Your task to perform on an android device: delete browsing data in the chrome app Image 0: 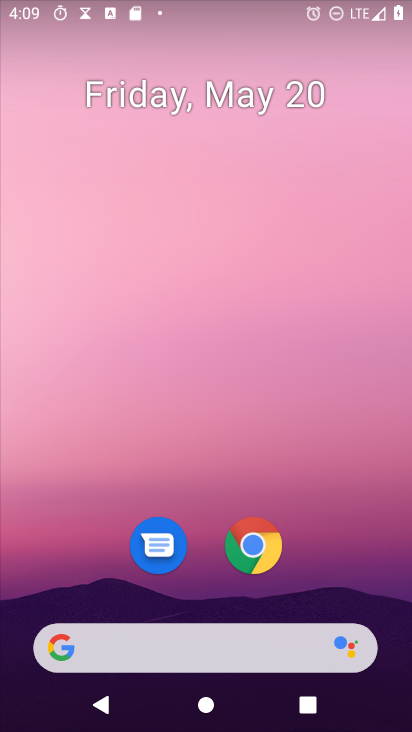
Step 0: drag from (251, 434) to (284, 114)
Your task to perform on an android device: delete browsing data in the chrome app Image 1: 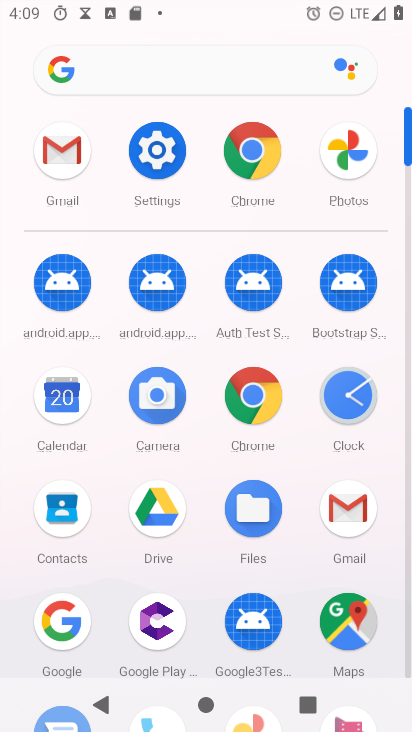
Step 1: click (270, 404)
Your task to perform on an android device: delete browsing data in the chrome app Image 2: 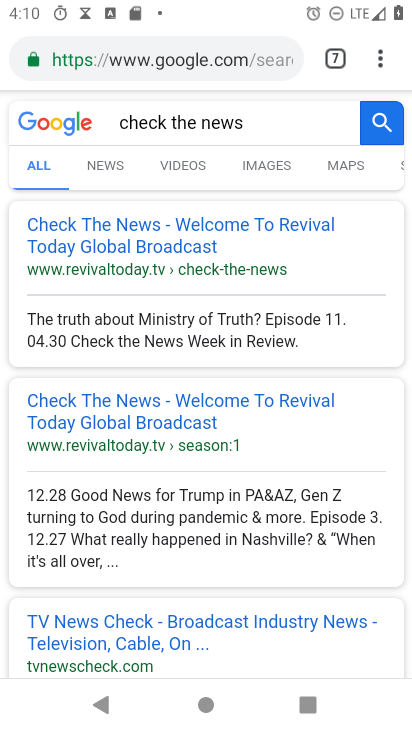
Step 2: drag from (378, 51) to (219, 568)
Your task to perform on an android device: delete browsing data in the chrome app Image 3: 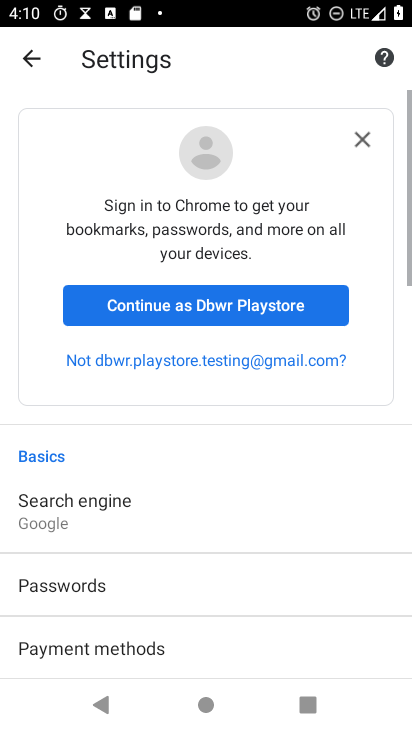
Step 3: drag from (269, 561) to (324, 71)
Your task to perform on an android device: delete browsing data in the chrome app Image 4: 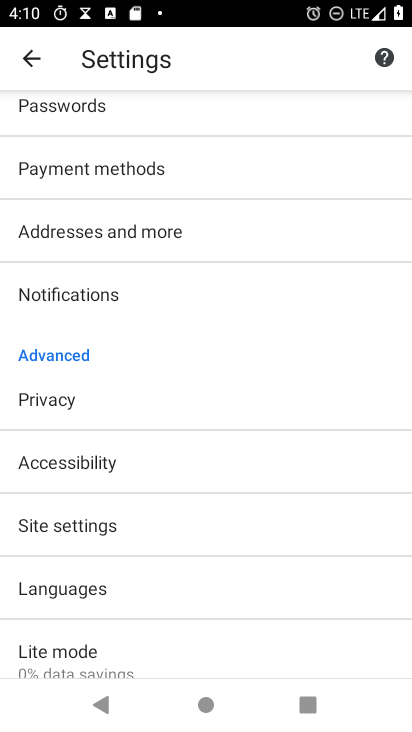
Step 4: drag from (189, 275) to (311, 56)
Your task to perform on an android device: delete browsing data in the chrome app Image 5: 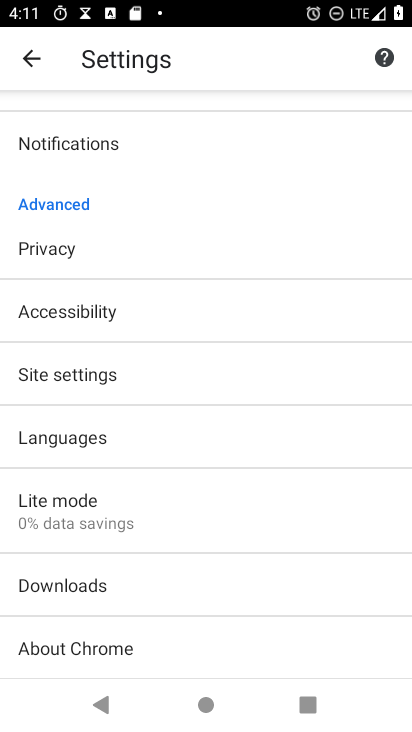
Step 5: click (109, 264)
Your task to perform on an android device: delete browsing data in the chrome app Image 6: 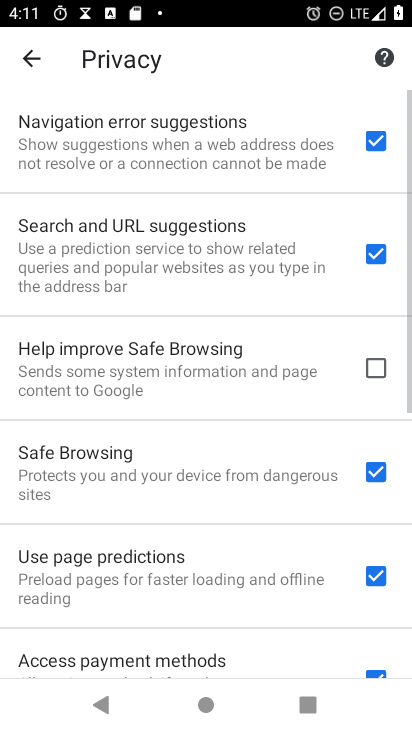
Step 6: drag from (299, 654) to (349, 125)
Your task to perform on an android device: delete browsing data in the chrome app Image 7: 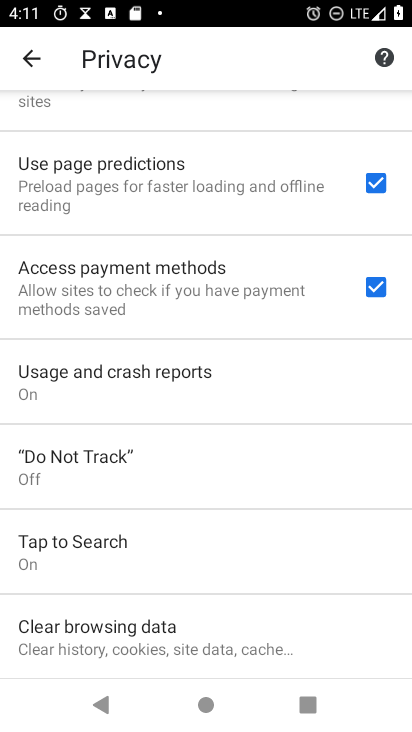
Step 7: click (232, 630)
Your task to perform on an android device: delete browsing data in the chrome app Image 8: 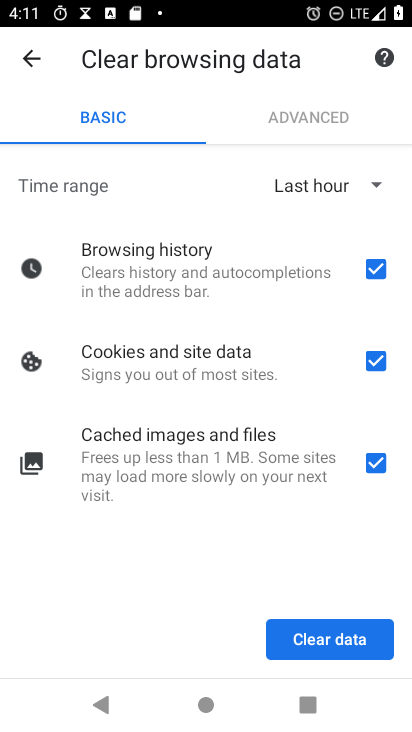
Step 8: click (351, 648)
Your task to perform on an android device: delete browsing data in the chrome app Image 9: 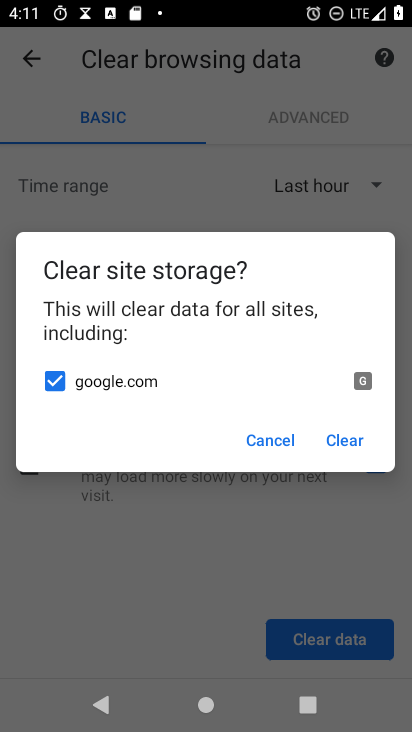
Step 9: click (342, 441)
Your task to perform on an android device: delete browsing data in the chrome app Image 10: 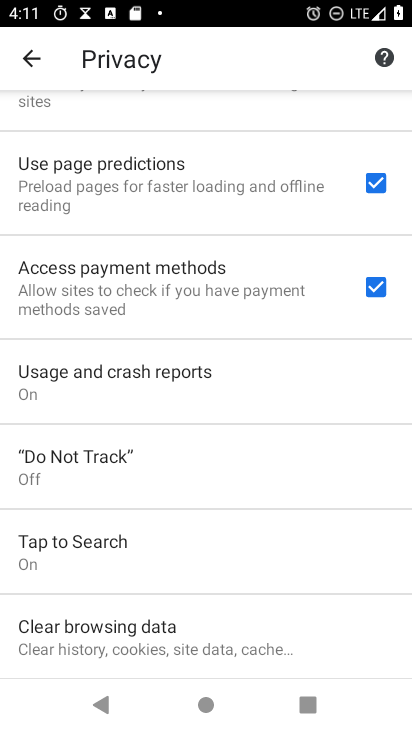
Step 10: task complete